Your task to perform on an android device: Open the phone app and click the voicemail tab. Image 0: 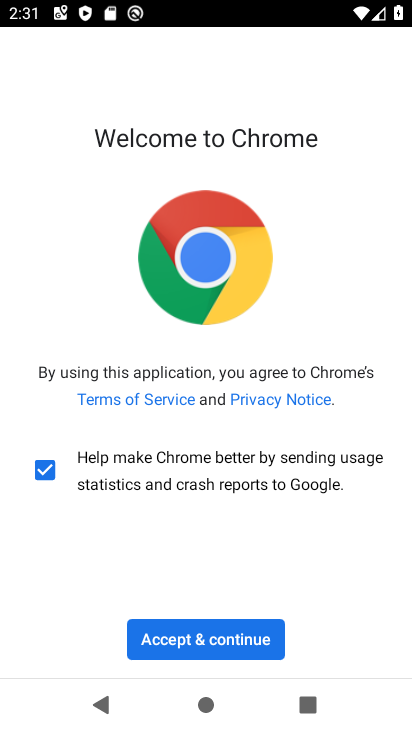
Step 0: press home button
Your task to perform on an android device: Open the phone app and click the voicemail tab. Image 1: 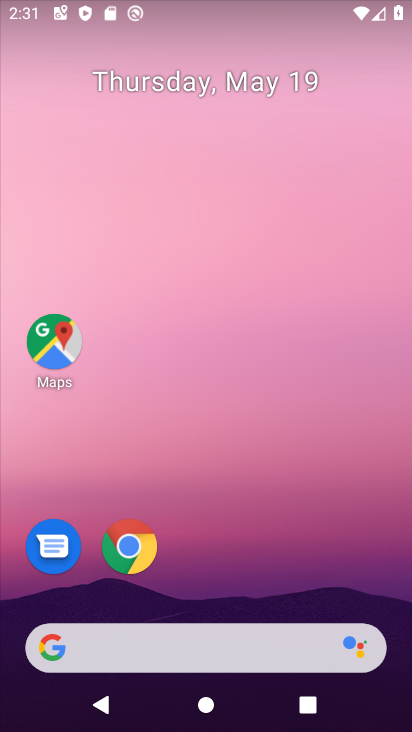
Step 1: drag from (241, 537) to (180, 38)
Your task to perform on an android device: Open the phone app and click the voicemail tab. Image 2: 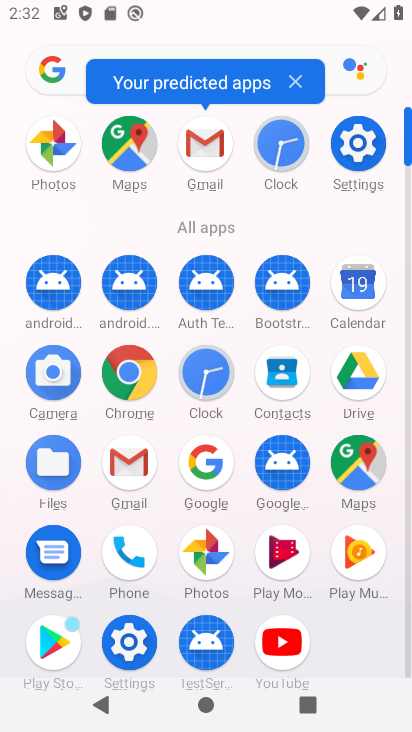
Step 2: click (125, 553)
Your task to perform on an android device: Open the phone app and click the voicemail tab. Image 3: 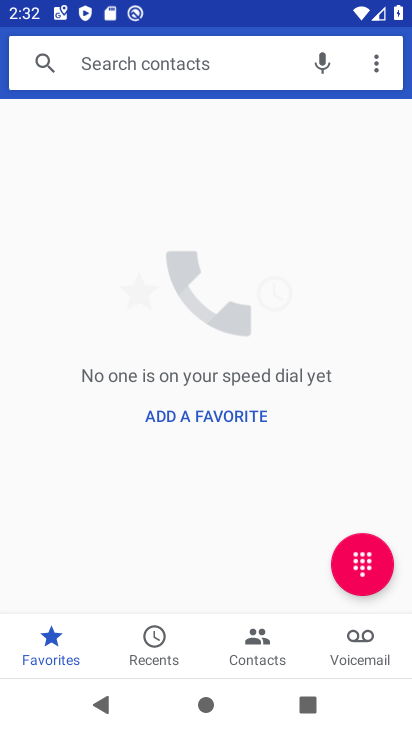
Step 3: click (356, 635)
Your task to perform on an android device: Open the phone app and click the voicemail tab. Image 4: 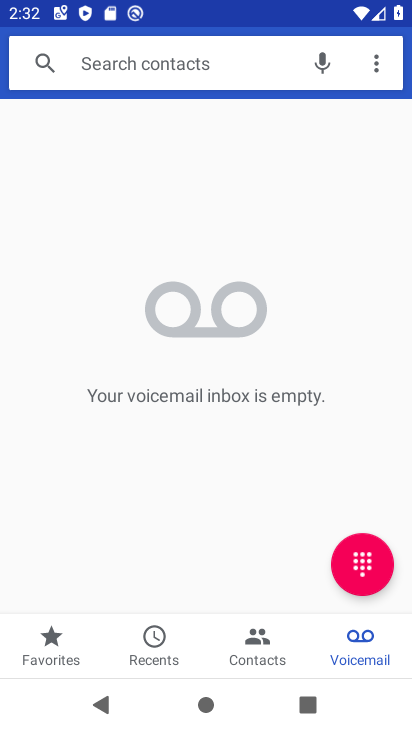
Step 4: task complete